Your task to perform on an android device: What's on my calendar for the rest of the month? Image 0: 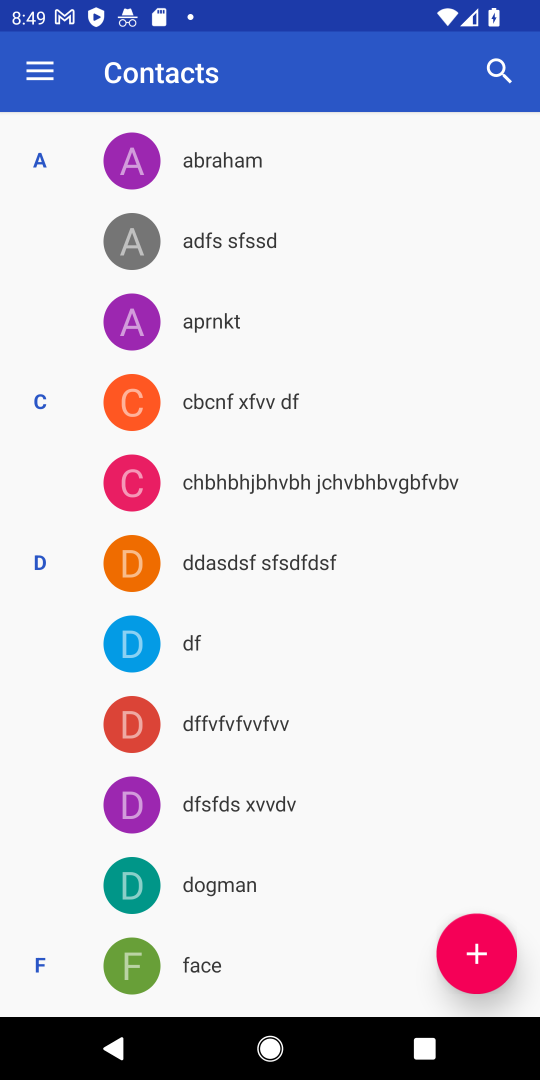
Step 0: press home button
Your task to perform on an android device: What's on my calendar for the rest of the month? Image 1: 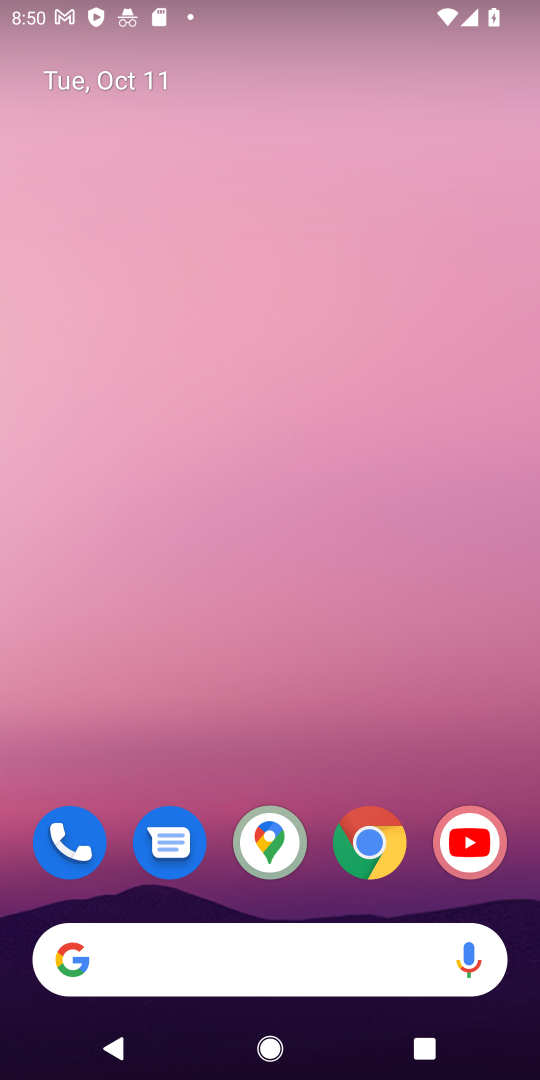
Step 1: drag from (269, 679) to (267, 403)
Your task to perform on an android device: What's on my calendar for the rest of the month? Image 2: 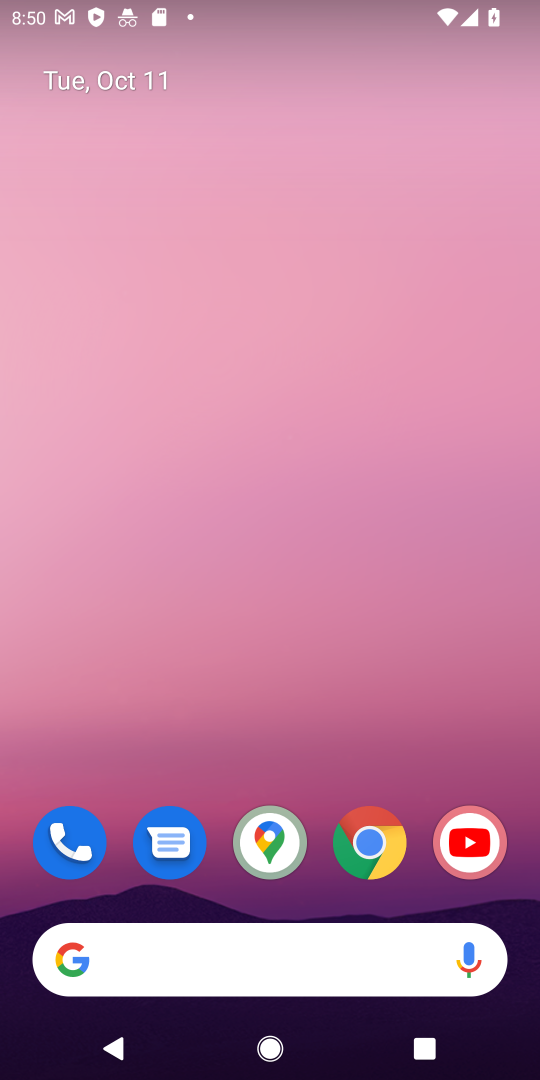
Step 2: drag from (248, 817) to (228, 291)
Your task to perform on an android device: What's on my calendar for the rest of the month? Image 3: 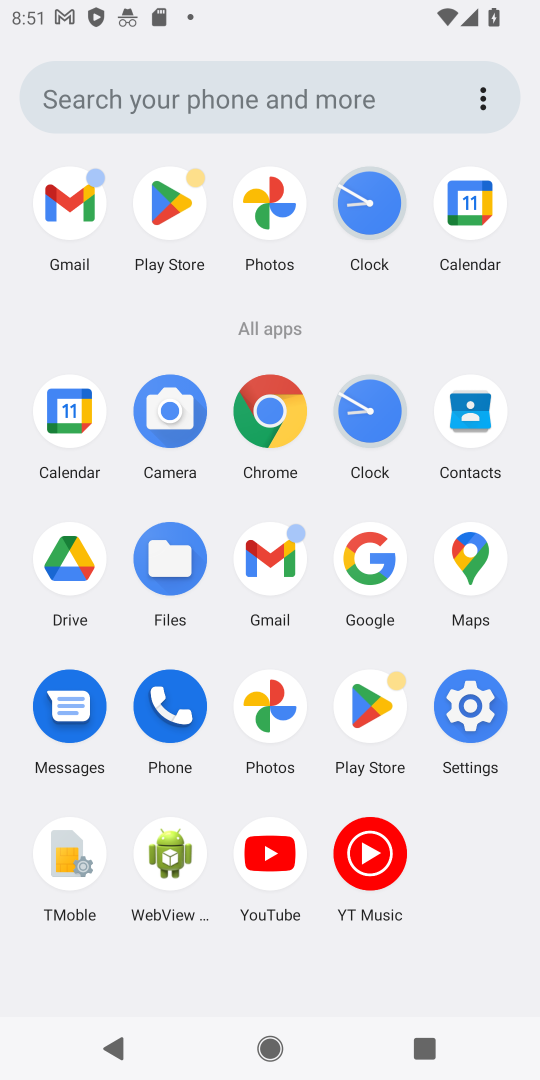
Step 3: click (473, 211)
Your task to perform on an android device: What's on my calendar for the rest of the month? Image 4: 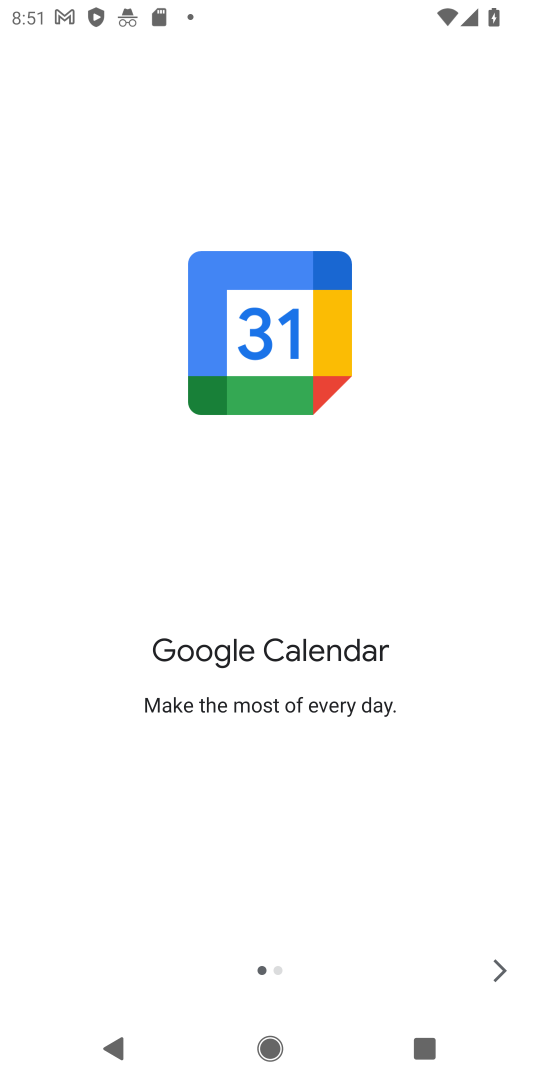
Step 4: click (502, 958)
Your task to perform on an android device: What's on my calendar for the rest of the month? Image 5: 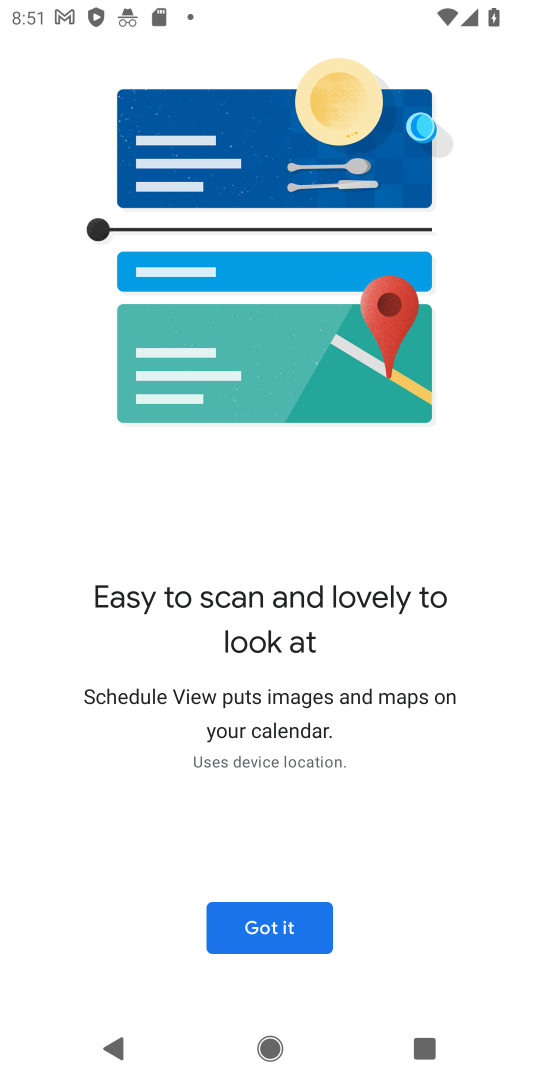
Step 5: click (280, 933)
Your task to perform on an android device: What's on my calendar for the rest of the month? Image 6: 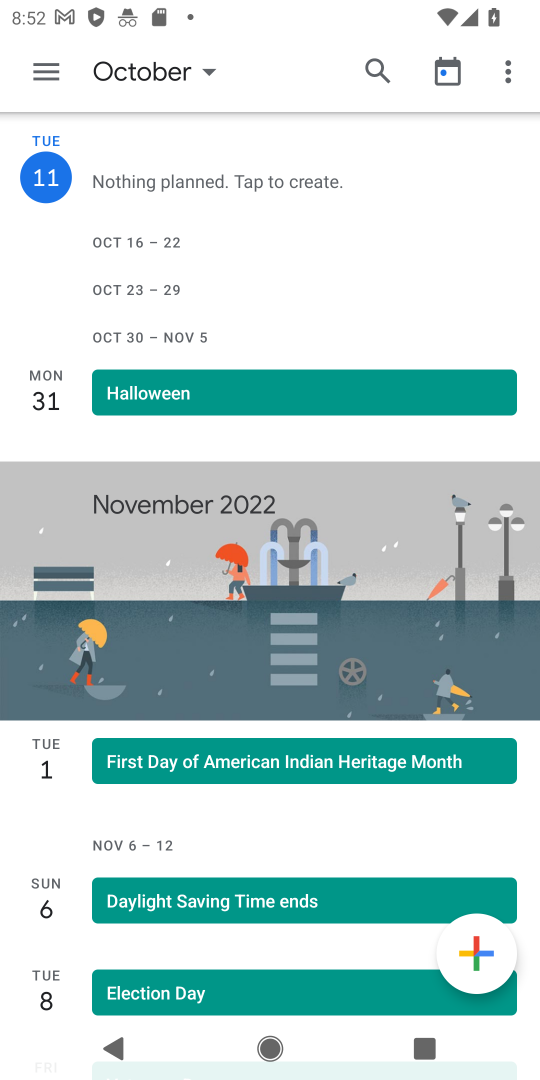
Step 6: click (45, 74)
Your task to perform on an android device: What's on my calendar for the rest of the month? Image 7: 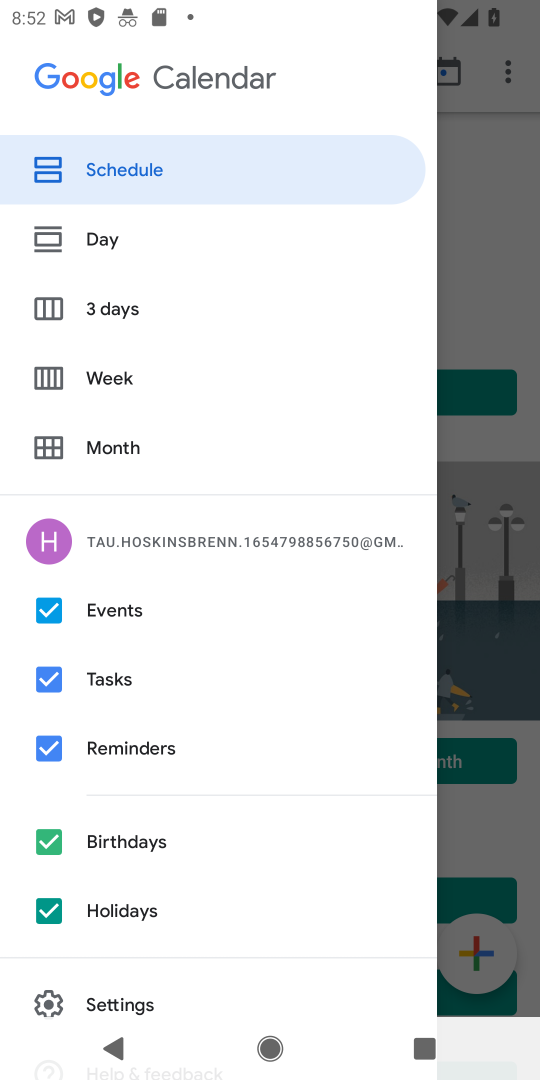
Step 7: click (107, 451)
Your task to perform on an android device: What's on my calendar for the rest of the month? Image 8: 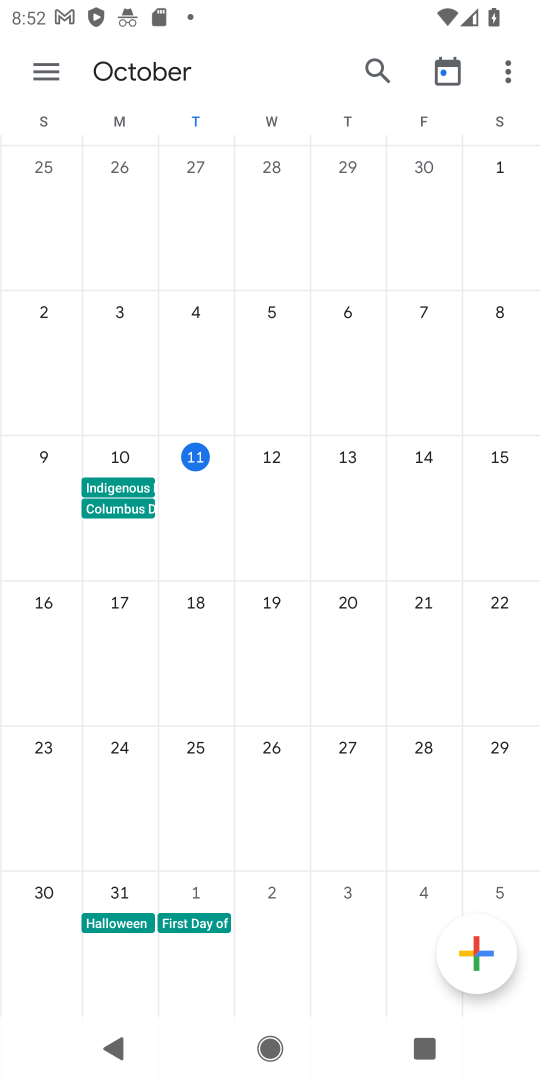
Step 8: task complete